Your task to perform on an android device: What's the weather? Image 0: 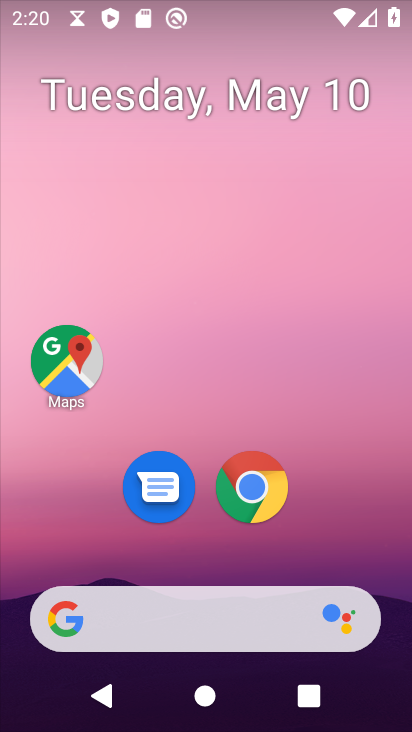
Step 0: drag from (150, 571) to (307, 43)
Your task to perform on an android device: What's the weather? Image 1: 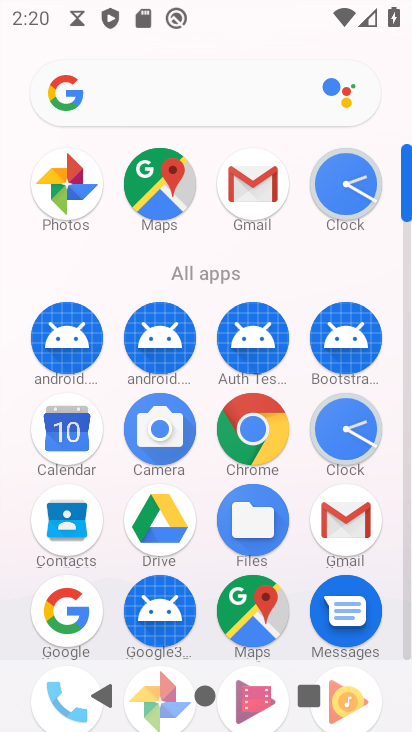
Step 1: click (65, 609)
Your task to perform on an android device: What's the weather? Image 2: 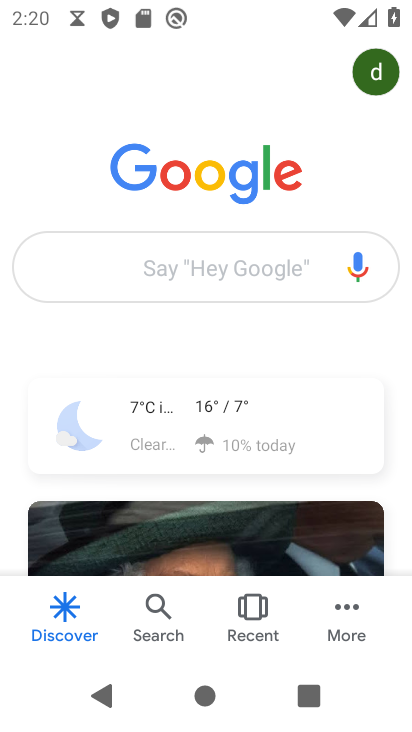
Step 2: click (256, 421)
Your task to perform on an android device: What's the weather? Image 3: 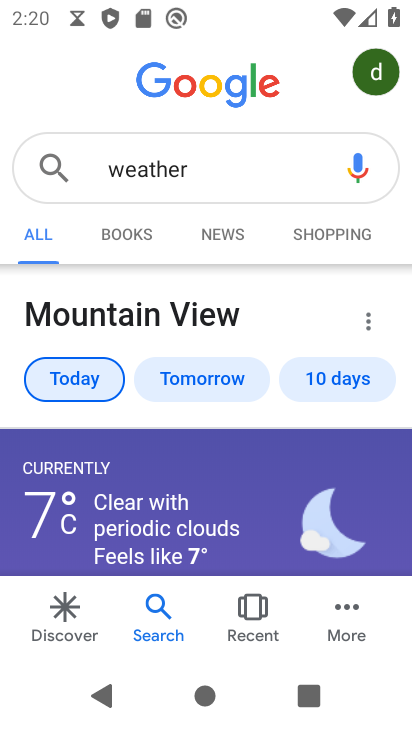
Step 3: task complete